Your task to perform on an android device: Open the stopwatch Image 0: 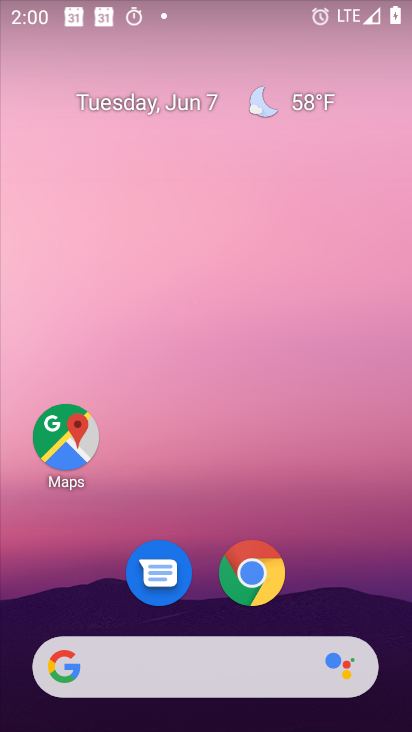
Step 0: drag from (324, 585) to (264, 20)
Your task to perform on an android device: Open the stopwatch Image 1: 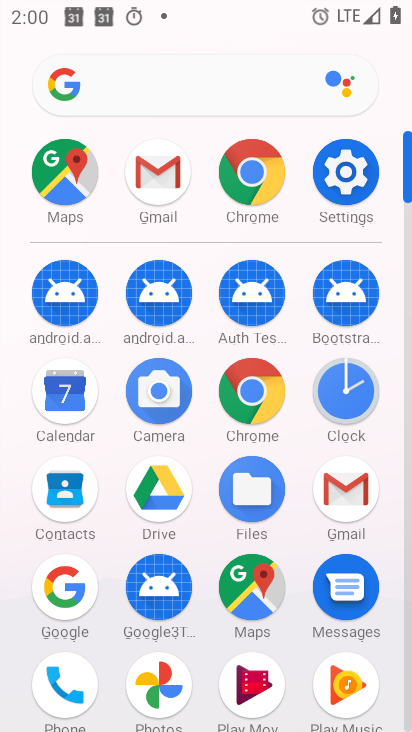
Step 1: click (331, 394)
Your task to perform on an android device: Open the stopwatch Image 2: 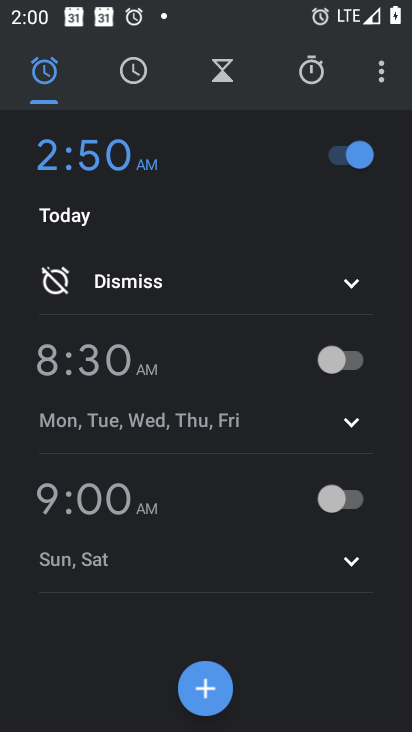
Step 2: click (315, 78)
Your task to perform on an android device: Open the stopwatch Image 3: 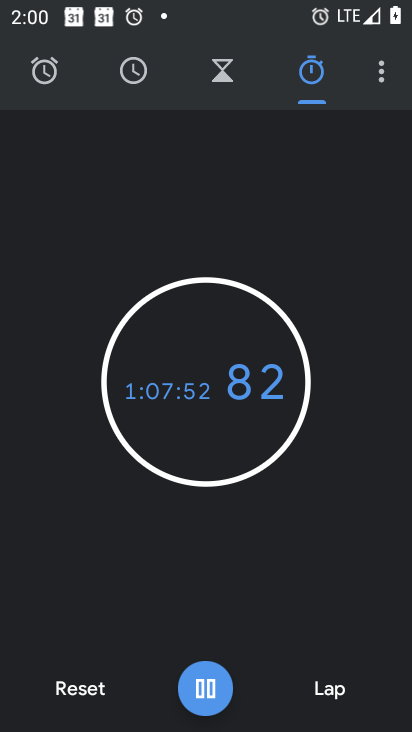
Step 3: task complete